Your task to perform on an android device: allow notifications from all sites in the chrome app Image 0: 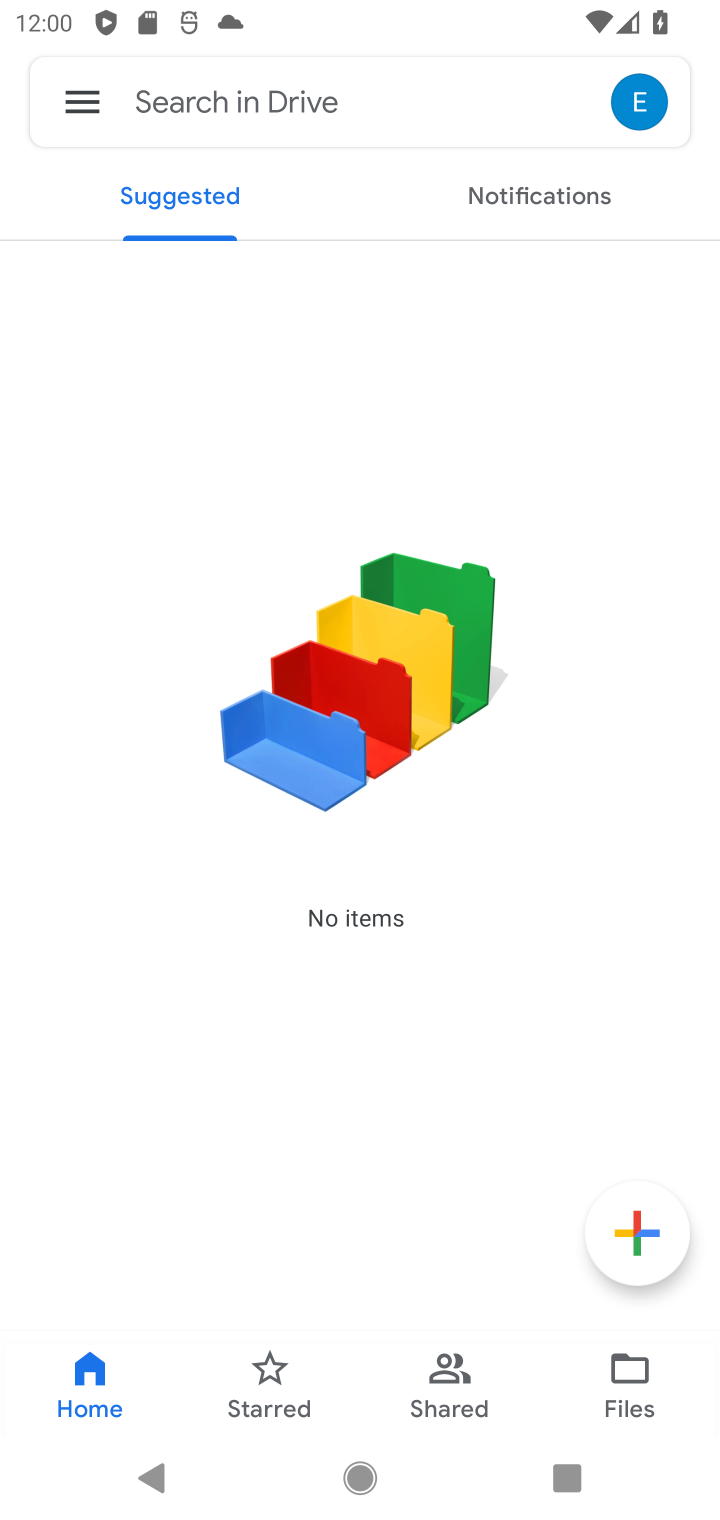
Step 0: press home button
Your task to perform on an android device: allow notifications from all sites in the chrome app Image 1: 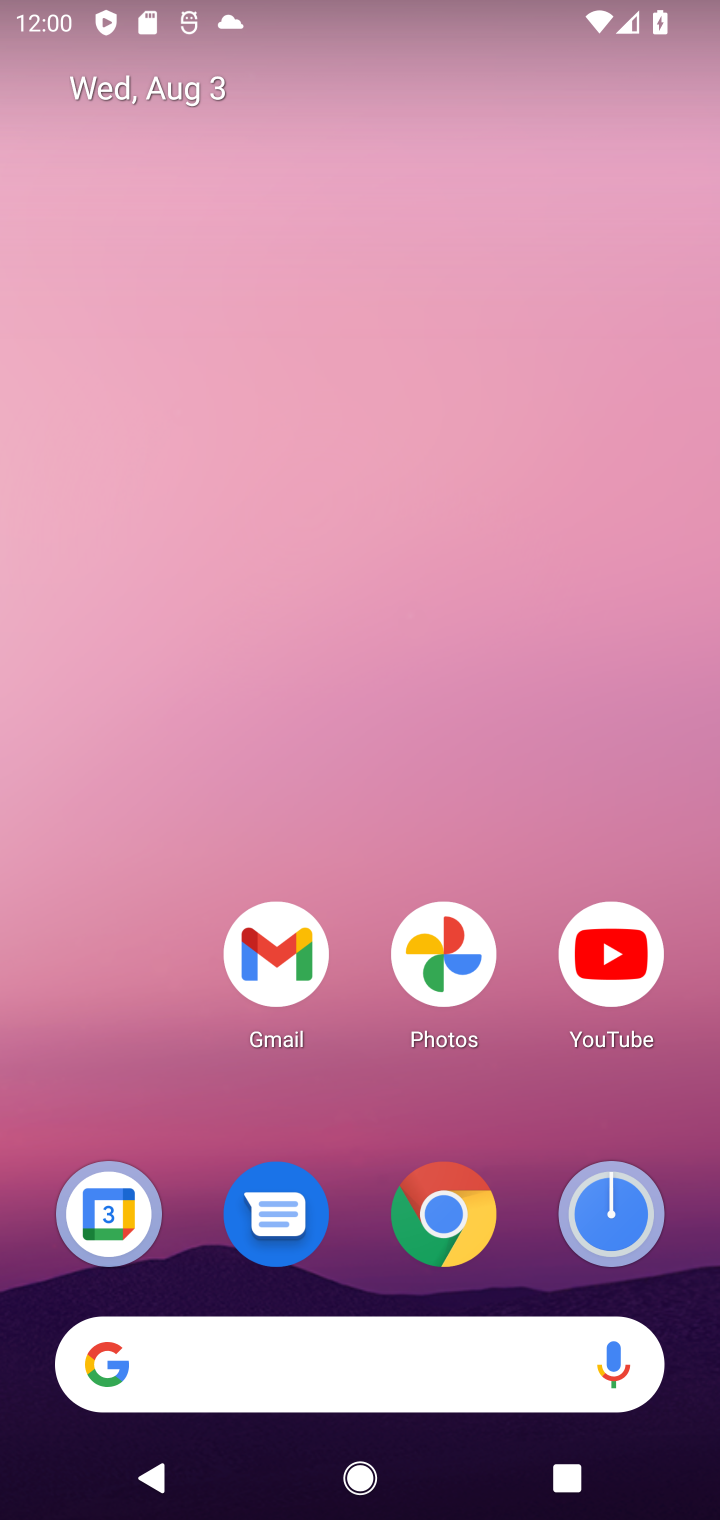
Step 1: click (472, 1243)
Your task to perform on an android device: allow notifications from all sites in the chrome app Image 2: 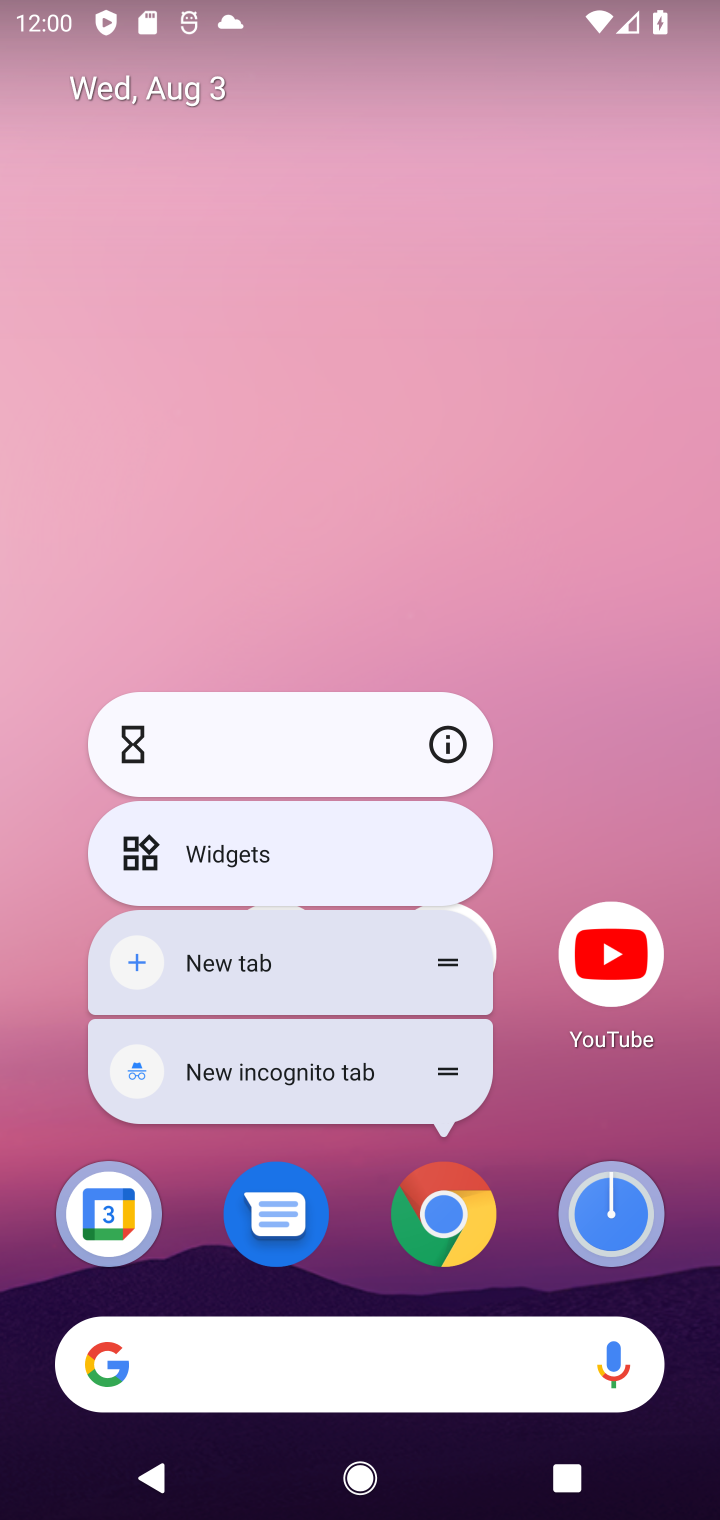
Step 2: click (456, 1219)
Your task to perform on an android device: allow notifications from all sites in the chrome app Image 3: 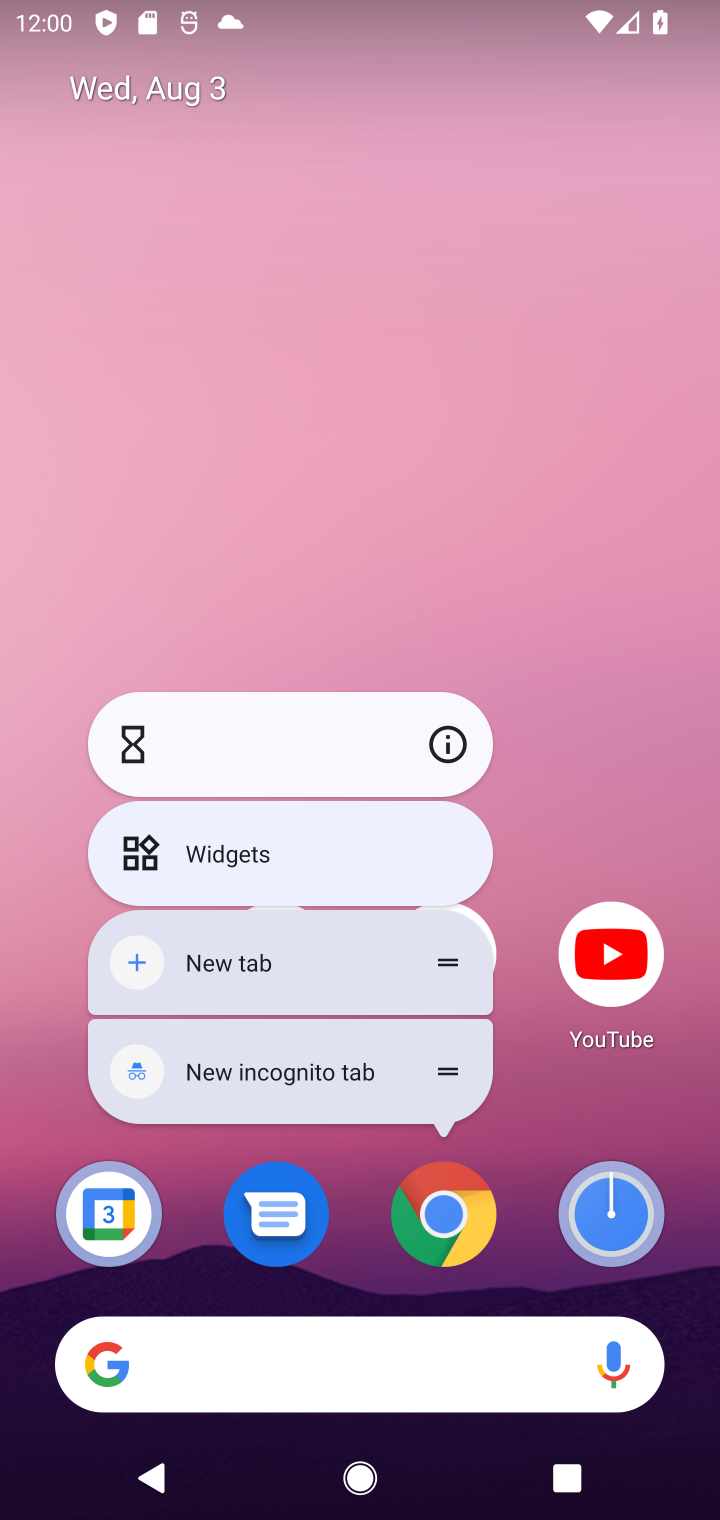
Step 3: click (456, 1219)
Your task to perform on an android device: allow notifications from all sites in the chrome app Image 4: 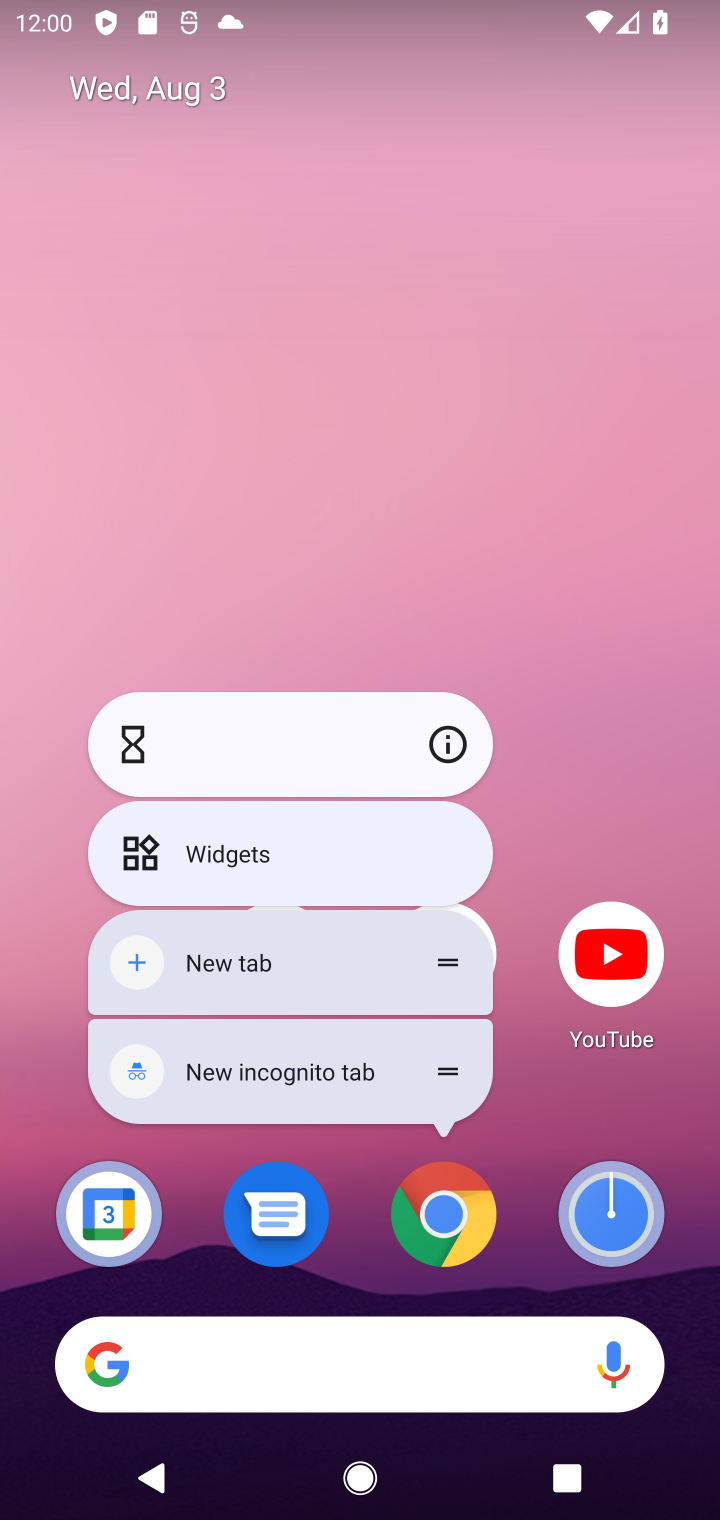
Step 4: click (454, 734)
Your task to perform on an android device: allow notifications from all sites in the chrome app Image 5: 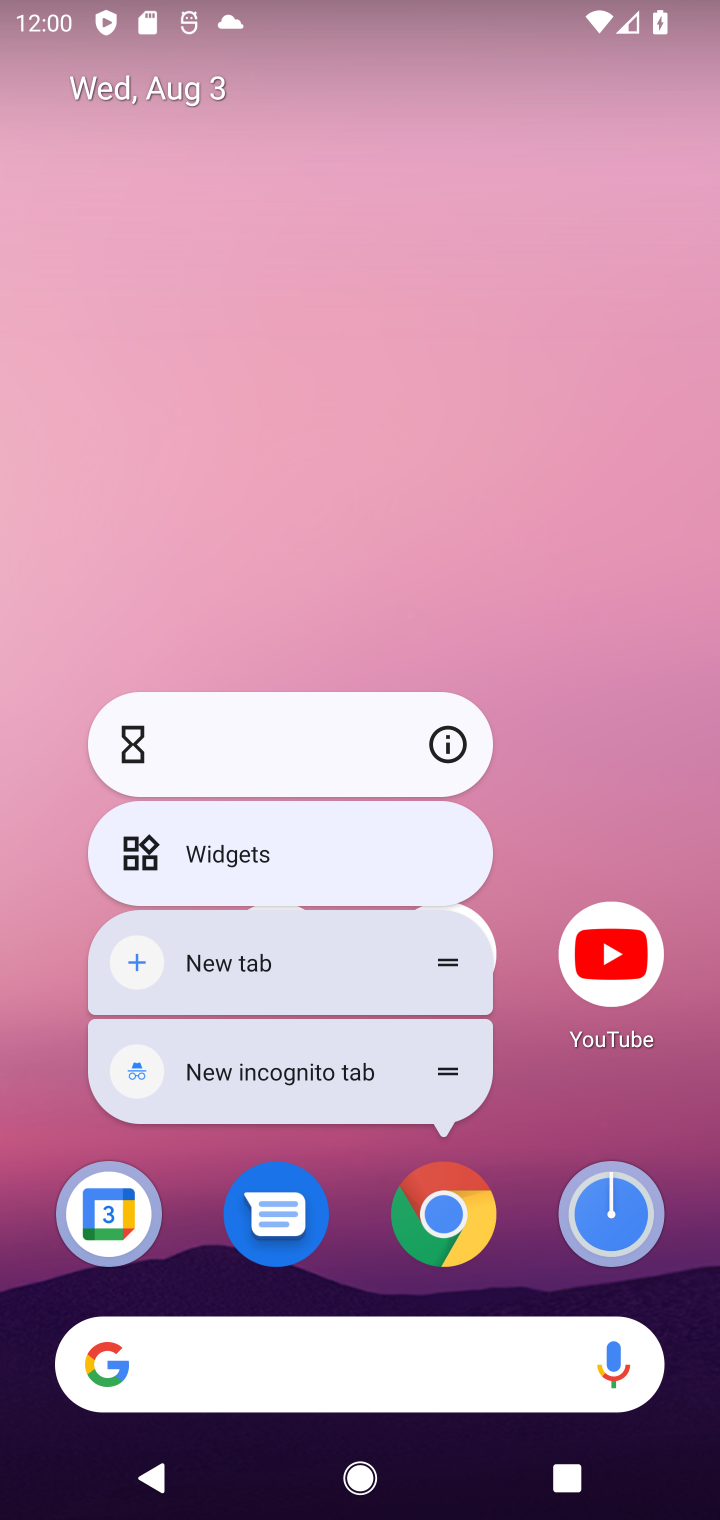
Step 5: click (454, 737)
Your task to perform on an android device: allow notifications from all sites in the chrome app Image 6: 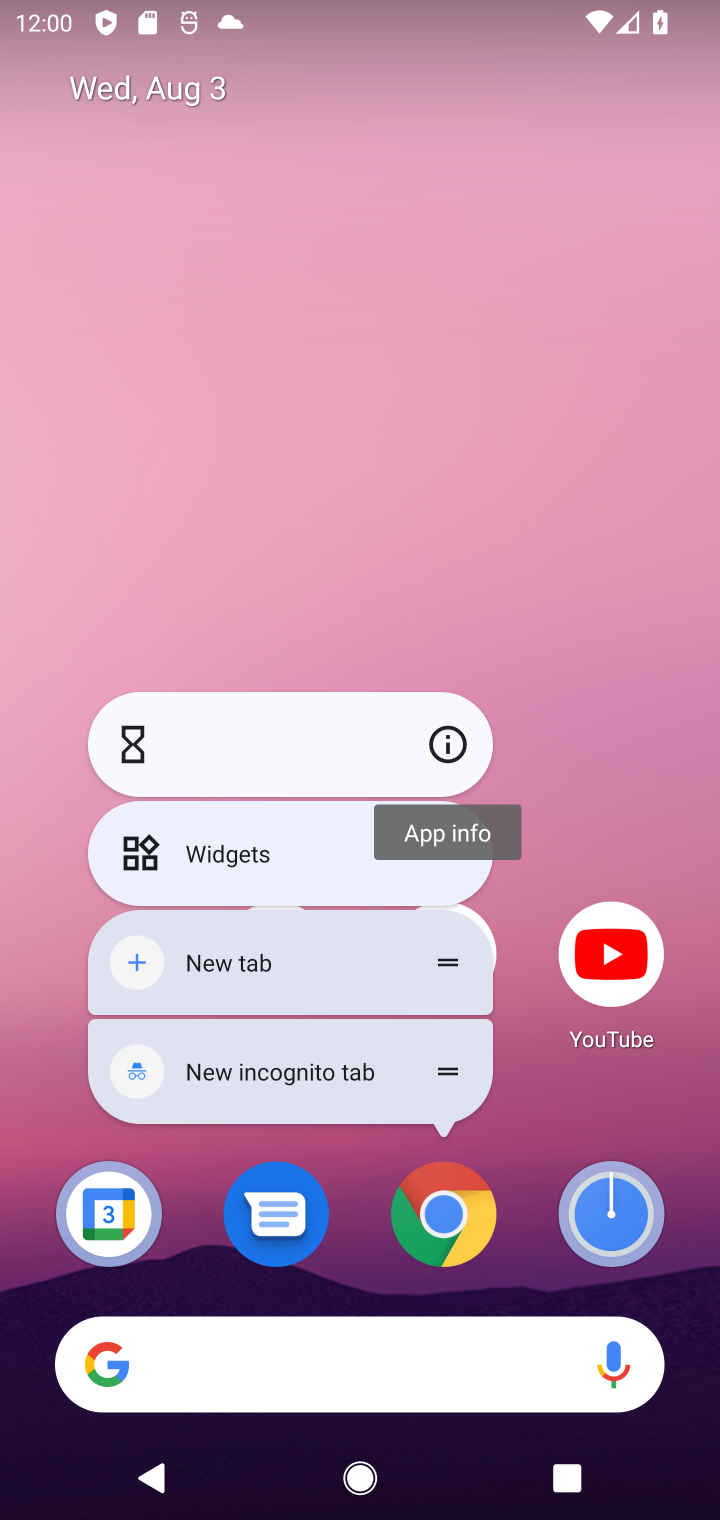
Step 6: click (449, 749)
Your task to perform on an android device: allow notifications from all sites in the chrome app Image 7: 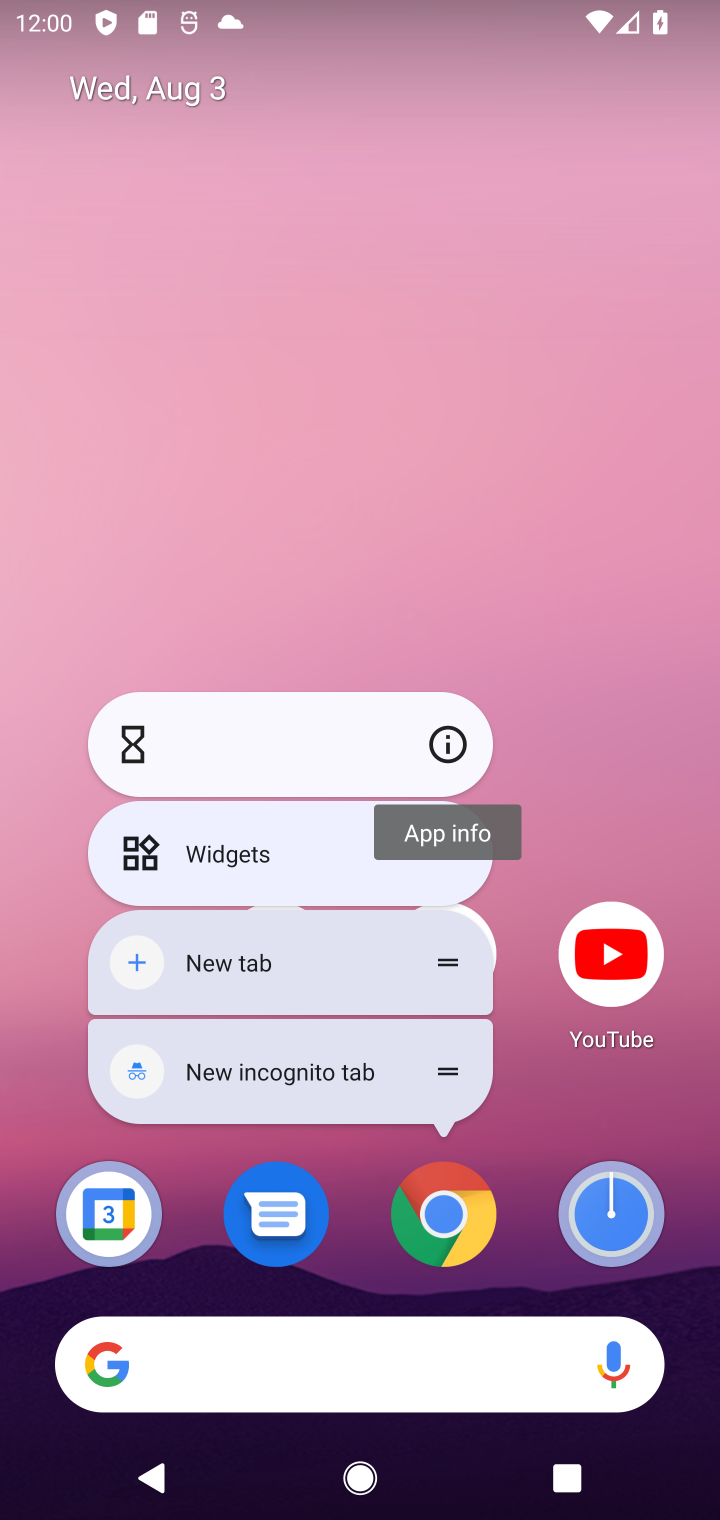
Step 7: click (456, 742)
Your task to perform on an android device: allow notifications from all sites in the chrome app Image 8: 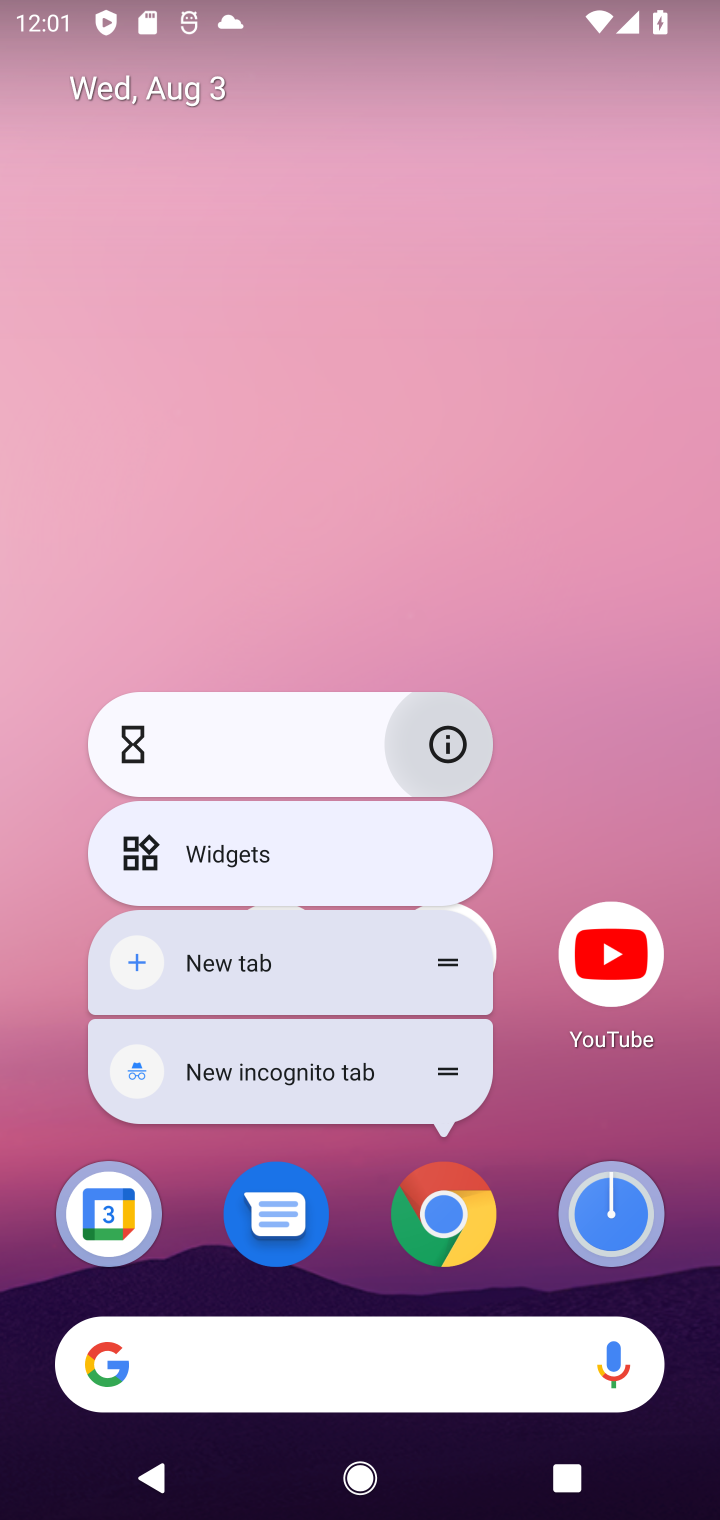
Step 8: click (456, 742)
Your task to perform on an android device: allow notifications from all sites in the chrome app Image 9: 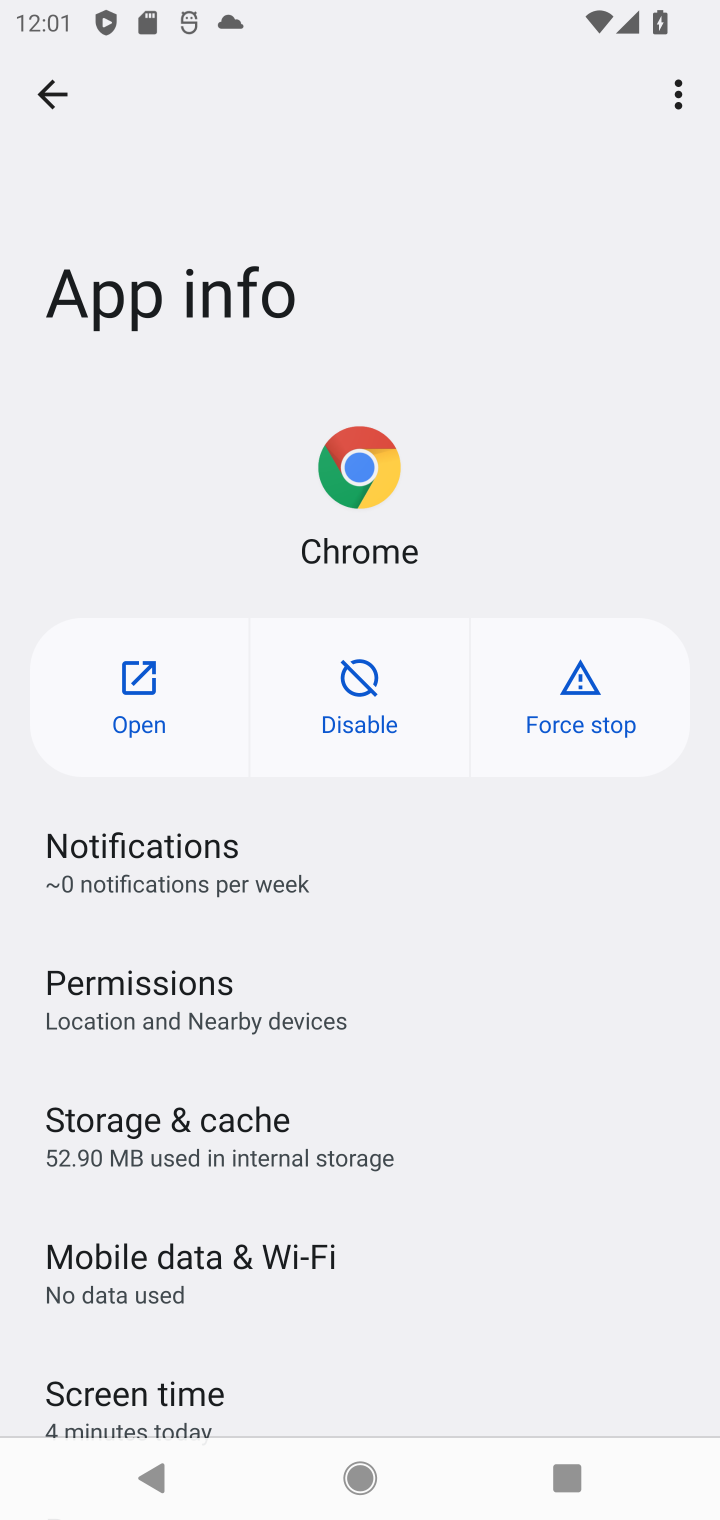
Step 9: click (266, 846)
Your task to perform on an android device: allow notifications from all sites in the chrome app Image 10: 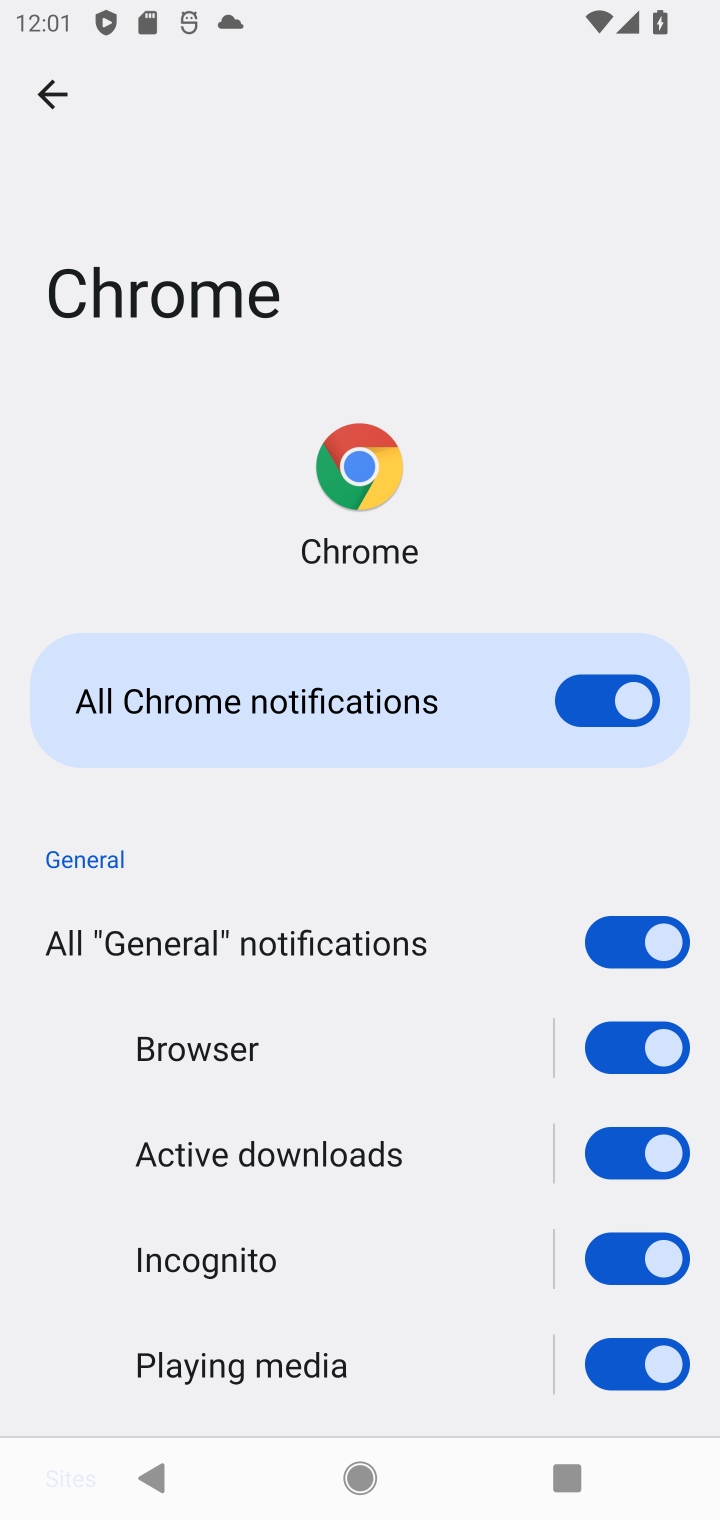
Step 10: click (509, 114)
Your task to perform on an android device: allow notifications from all sites in the chrome app Image 11: 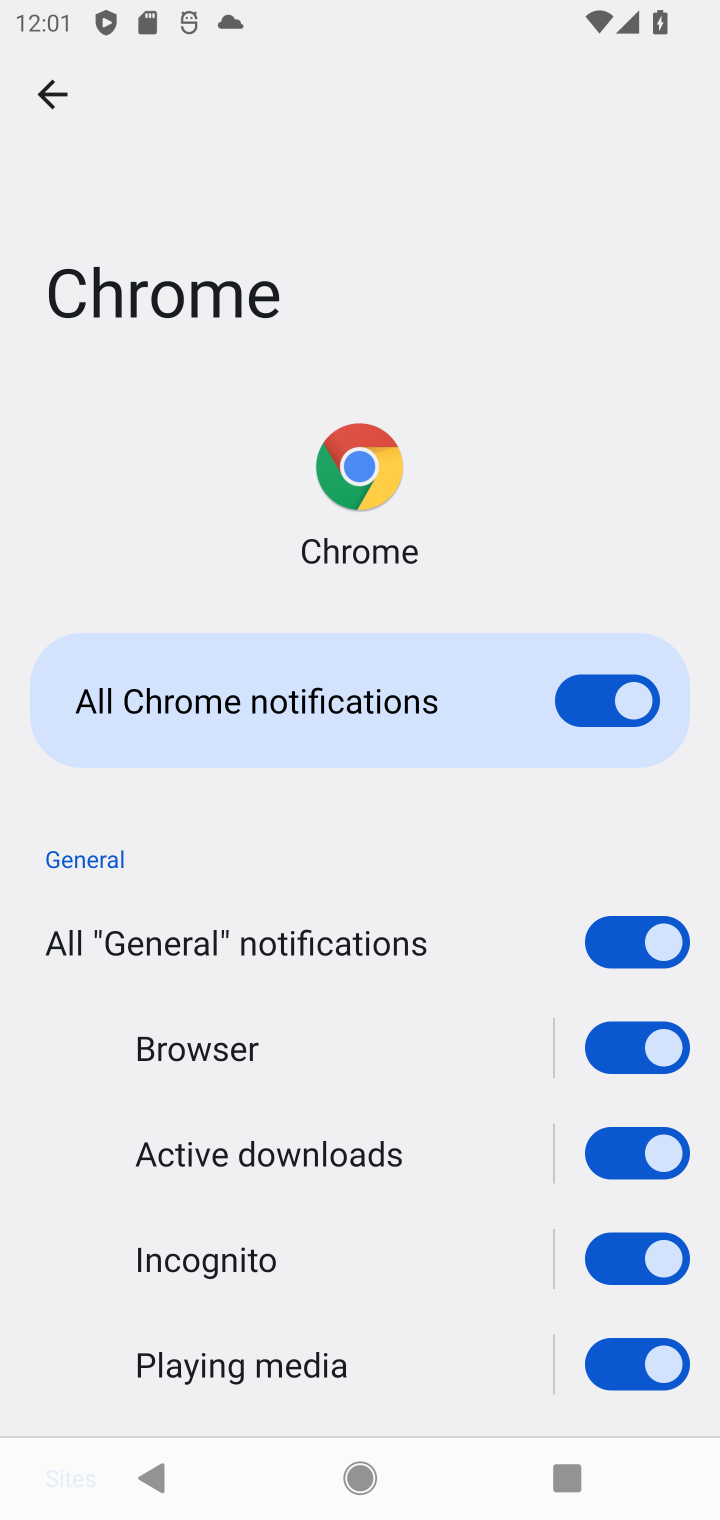
Step 11: task complete